Your task to perform on an android device: Go to wifi settings Image 0: 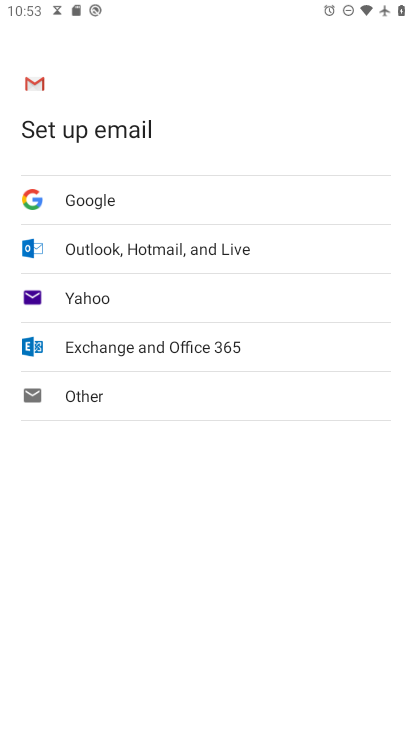
Step 0: press home button
Your task to perform on an android device: Go to wifi settings Image 1: 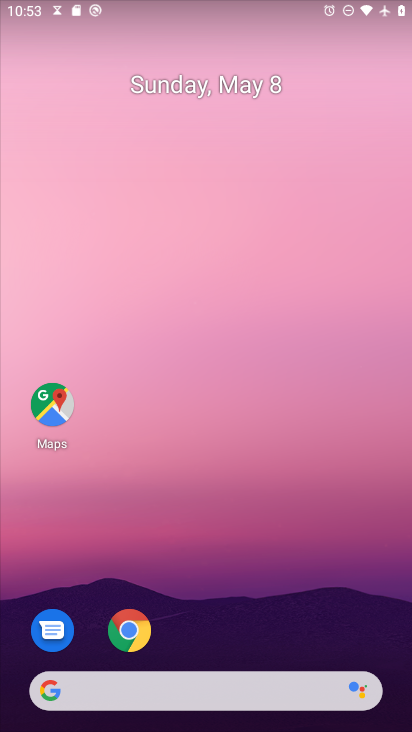
Step 1: drag from (206, 696) to (373, 92)
Your task to perform on an android device: Go to wifi settings Image 2: 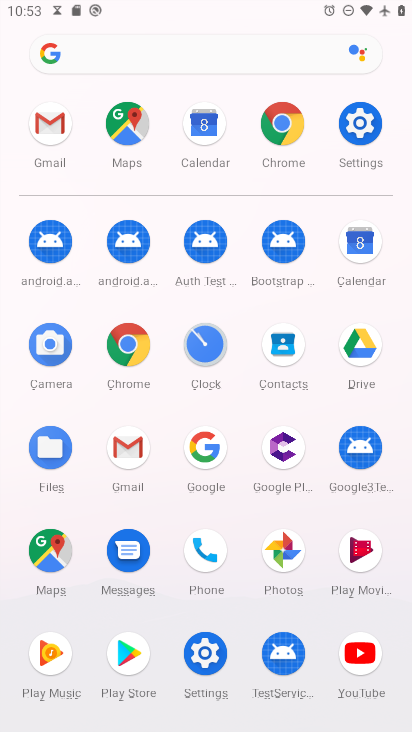
Step 2: click (359, 134)
Your task to perform on an android device: Go to wifi settings Image 3: 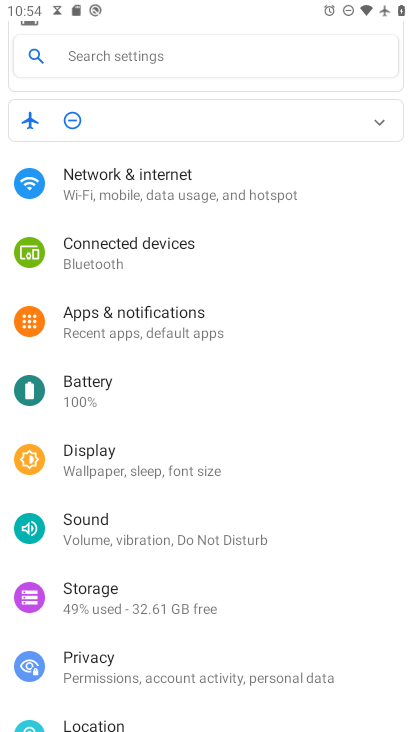
Step 3: click (184, 182)
Your task to perform on an android device: Go to wifi settings Image 4: 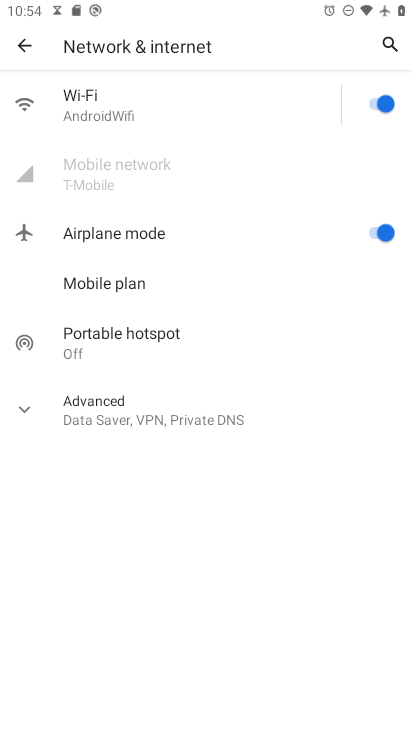
Step 4: click (89, 108)
Your task to perform on an android device: Go to wifi settings Image 5: 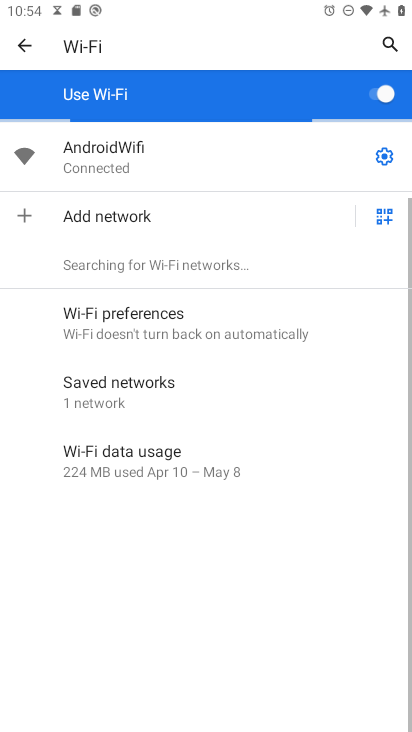
Step 5: task complete